Your task to perform on an android device: toggle wifi Image 0: 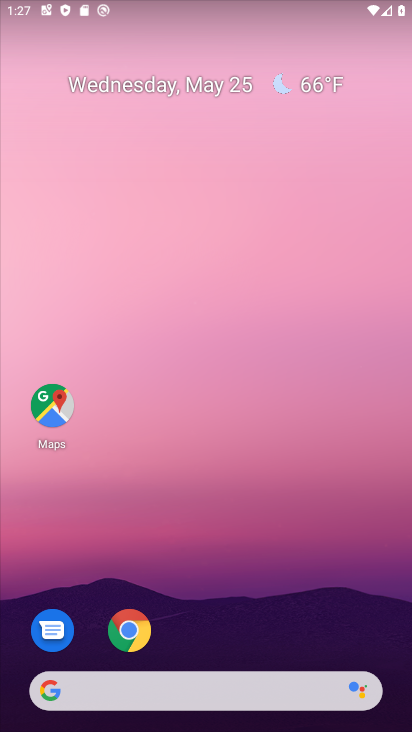
Step 0: drag from (219, 654) to (278, 121)
Your task to perform on an android device: toggle wifi Image 1: 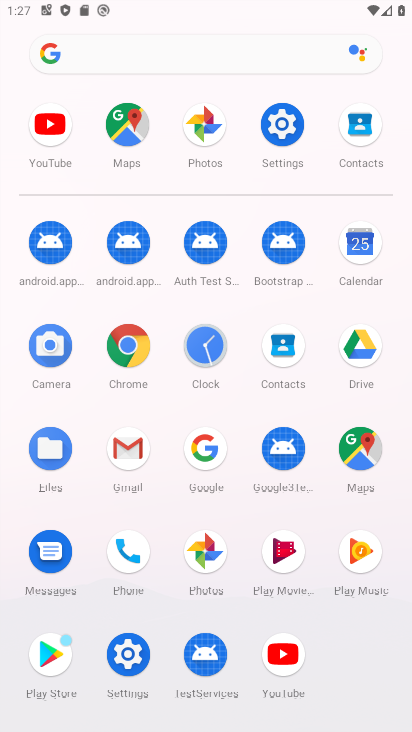
Step 1: drag from (201, 5) to (203, 384)
Your task to perform on an android device: toggle wifi Image 2: 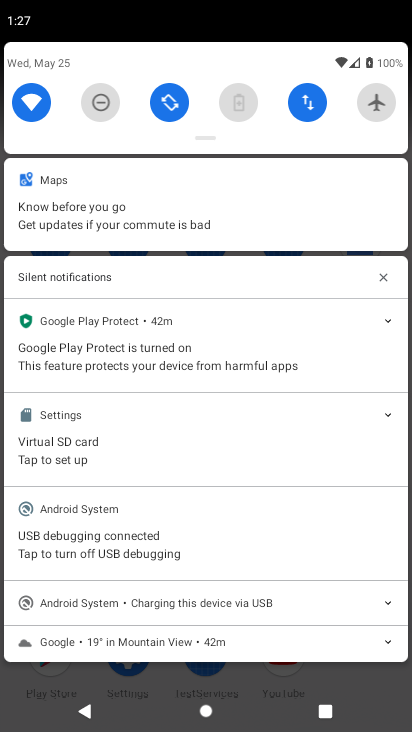
Step 2: click (28, 107)
Your task to perform on an android device: toggle wifi Image 3: 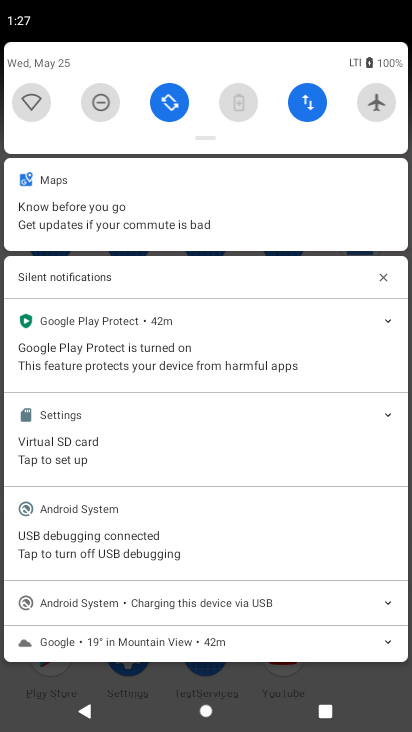
Step 3: task complete